Your task to perform on an android device: Open Reddit.com Image 0: 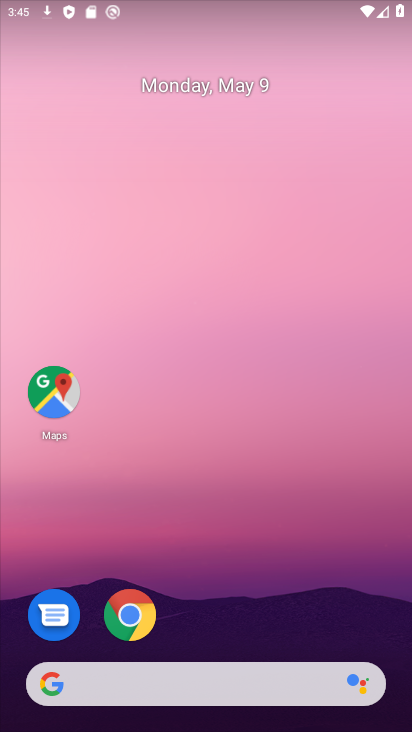
Step 0: click (128, 688)
Your task to perform on an android device: Open Reddit.com Image 1: 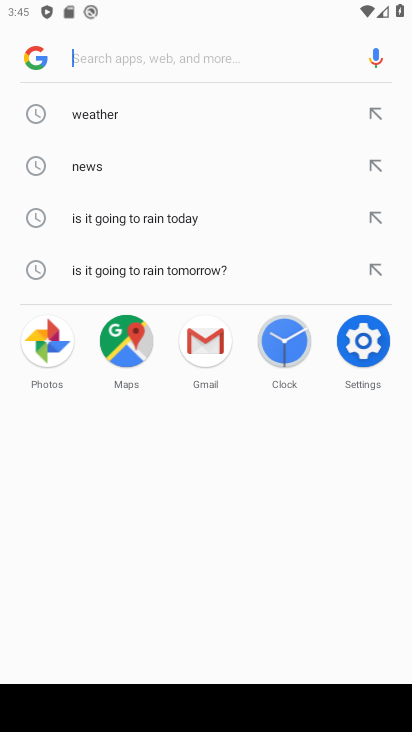
Step 1: type "Reddit.com"
Your task to perform on an android device: Open Reddit.com Image 2: 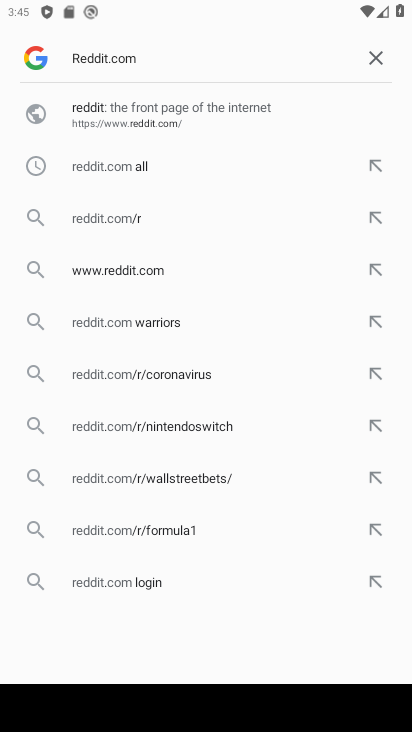
Step 2: click (188, 288)
Your task to perform on an android device: Open Reddit.com Image 3: 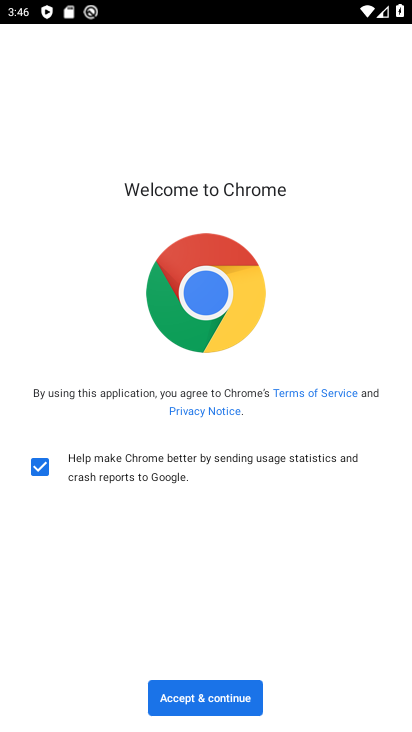
Step 3: click (244, 688)
Your task to perform on an android device: Open Reddit.com Image 4: 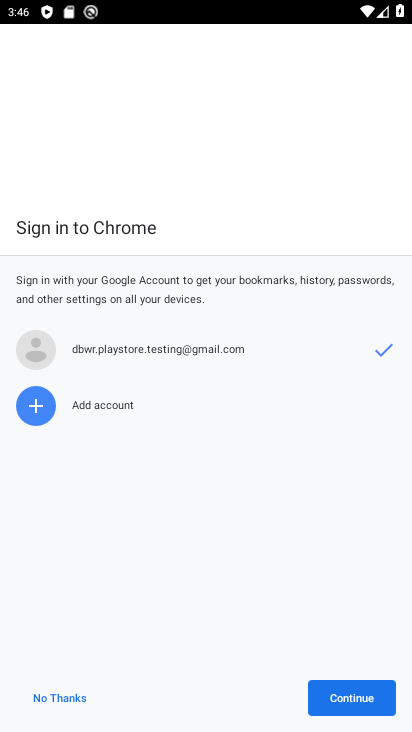
Step 4: click (377, 685)
Your task to perform on an android device: Open Reddit.com Image 5: 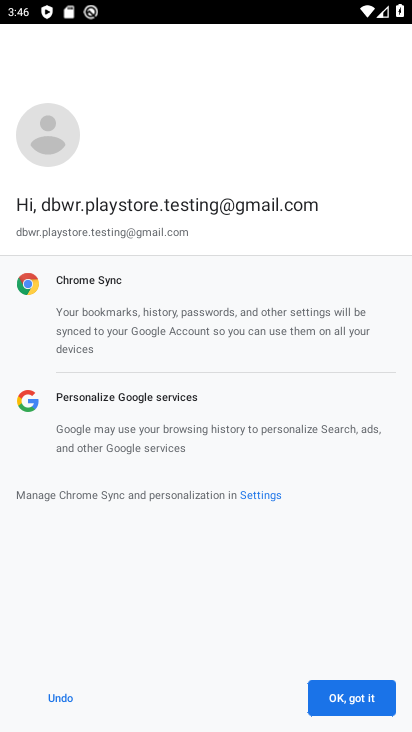
Step 5: click (364, 696)
Your task to perform on an android device: Open Reddit.com Image 6: 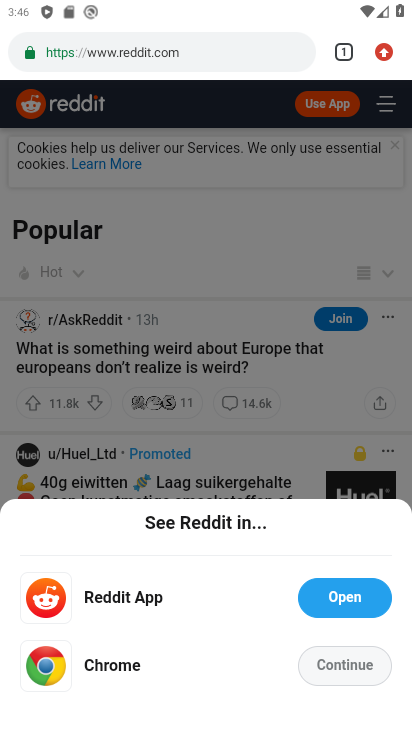
Step 6: click (366, 660)
Your task to perform on an android device: Open Reddit.com Image 7: 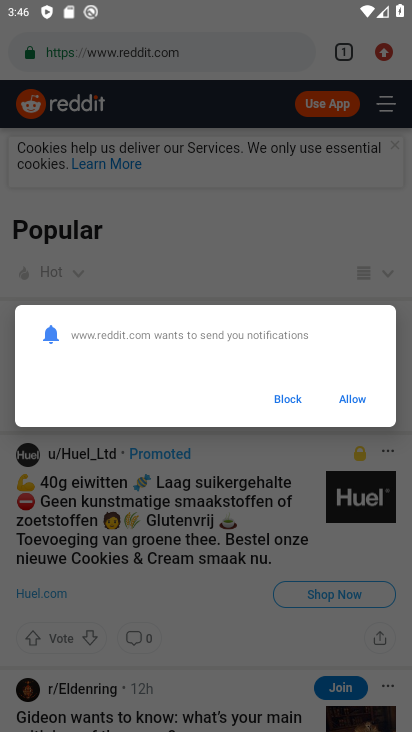
Step 7: click (356, 405)
Your task to perform on an android device: Open Reddit.com Image 8: 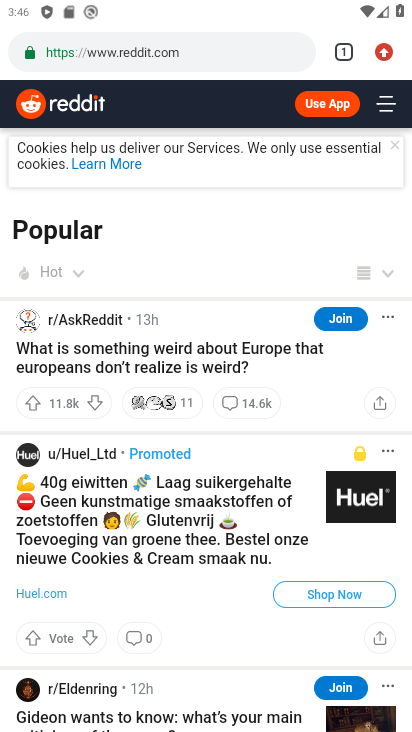
Step 8: task complete